Your task to perform on an android device: What's on my calendar tomorrow? Image 0: 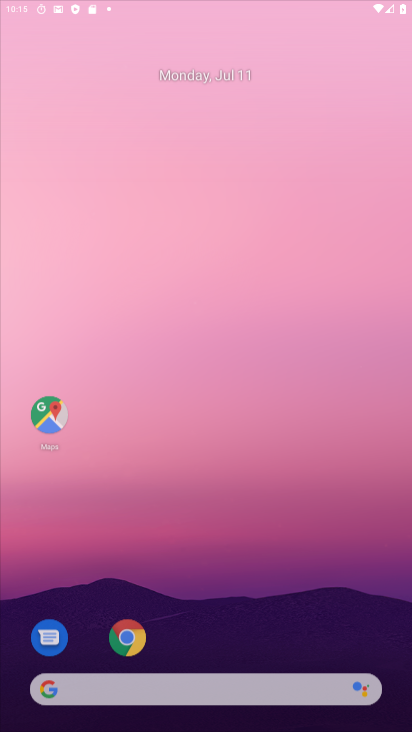
Step 0: click (360, 42)
Your task to perform on an android device: What's on my calendar tomorrow? Image 1: 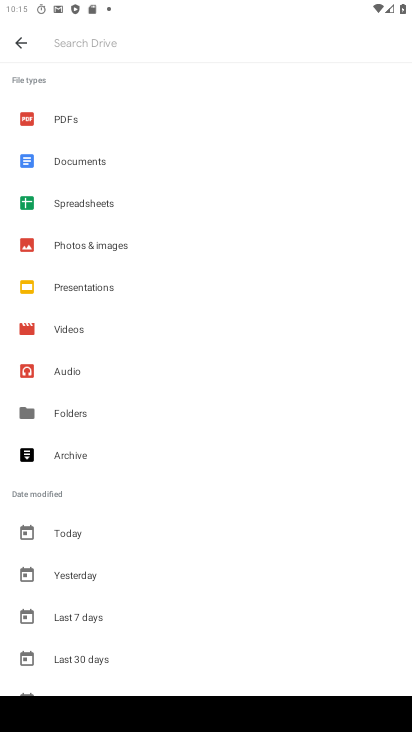
Step 1: press home button
Your task to perform on an android device: What's on my calendar tomorrow? Image 2: 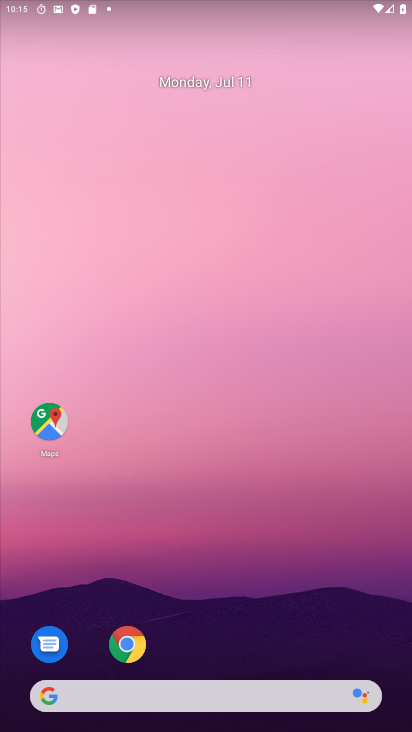
Step 2: drag from (241, 623) to (304, 124)
Your task to perform on an android device: What's on my calendar tomorrow? Image 3: 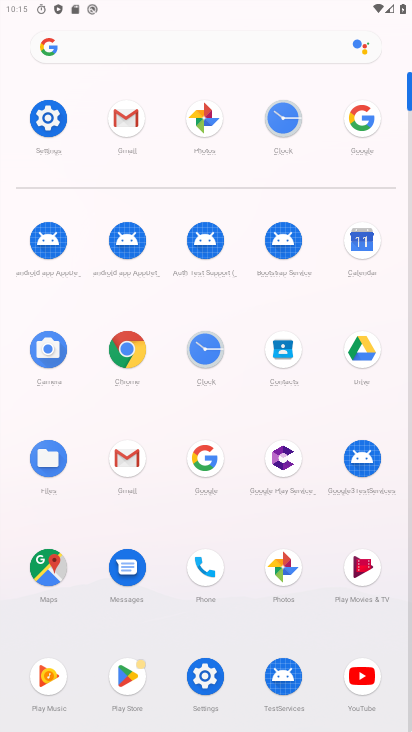
Step 3: click (364, 233)
Your task to perform on an android device: What's on my calendar tomorrow? Image 4: 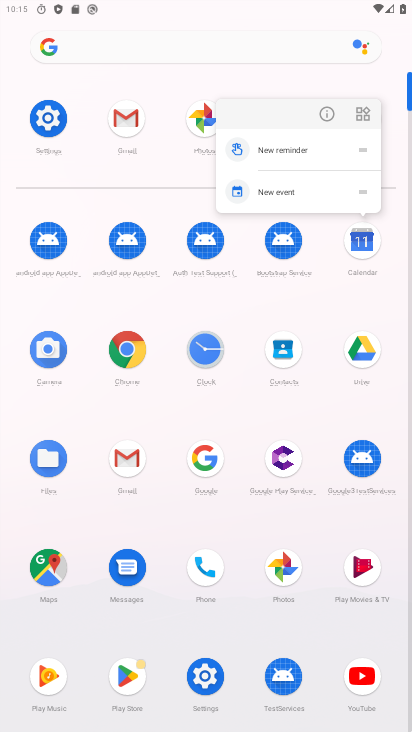
Step 4: click (368, 231)
Your task to perform on an android device: What's on my calendar tomorrow? Image 5: 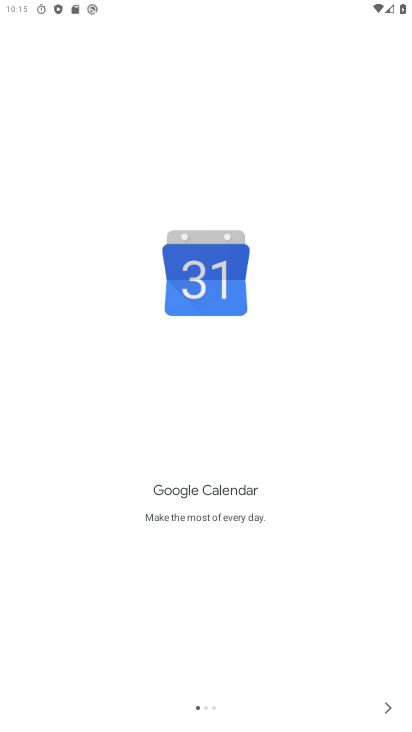
Step 5: click (391, 699)
Your task to perform on an android device: What's on my calendar tomorrow? Image 6: 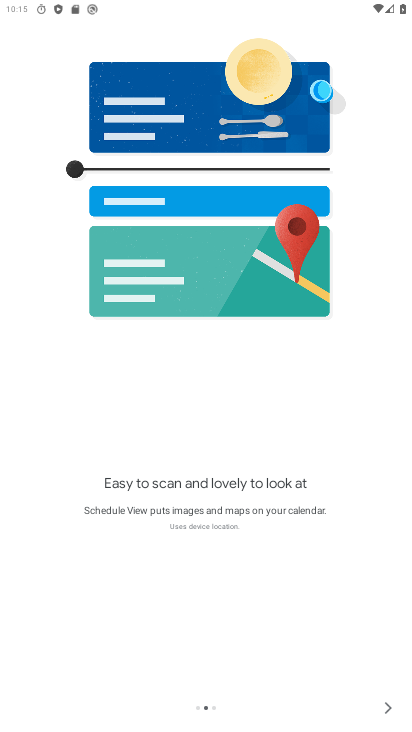
Step 6: click (391, 701)
Your task to perform on an android device: What's on my calendar tomorrow? Image 7: 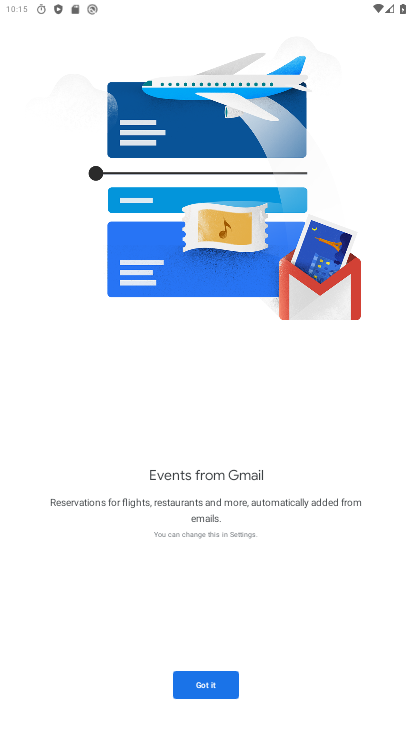
Step 7: click (213, 686)
Your task to perform on an android device: What's on my calendar tomorrow? Image 8: 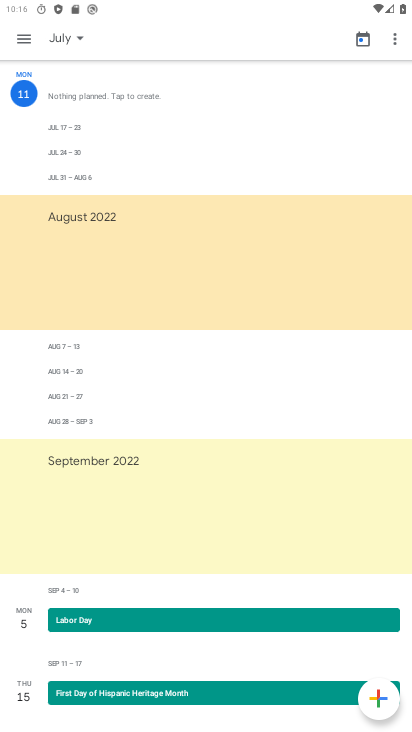
Step 8: click (72, 30)
Your task to perform on an android device: What's on my calendar tomorrow? Image 9: 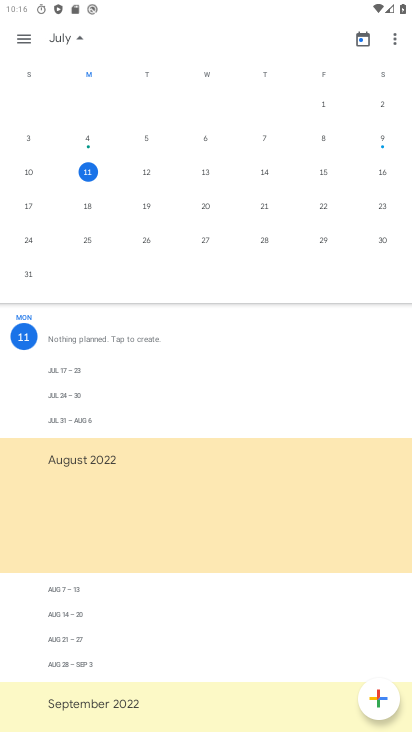
Step 9: click (152, 169)
Your task to perform on an android device: What's on my calendar tomorrow? Image 10: 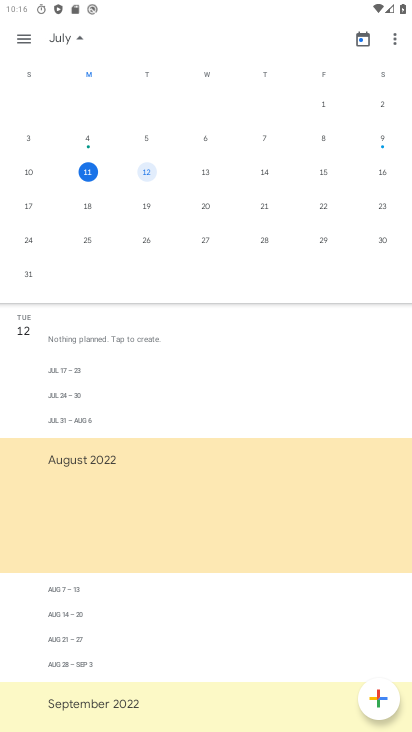
Step 10: task complete